Your task to perform on an android device: set the timer Image 0: 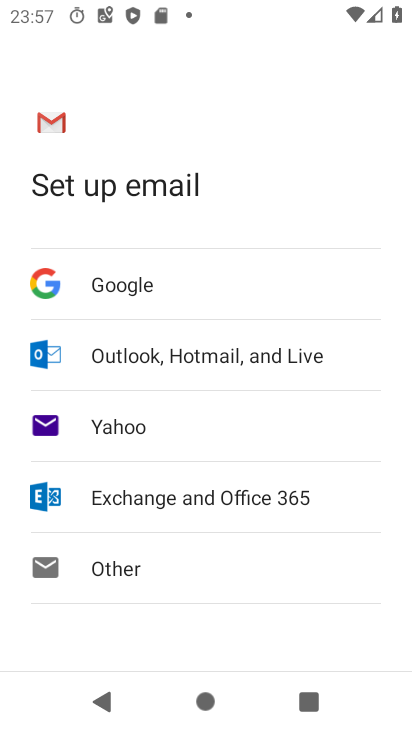
Step 0: press home button
Your task to perform on an android device: set the timer Image 1: 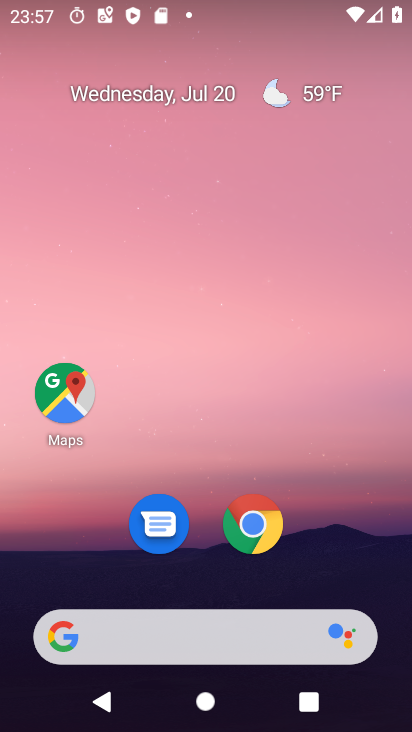
Step 1: drag from (277, 237) to (329, 87)
Your task to perform on an android device: set the timer Image 2: 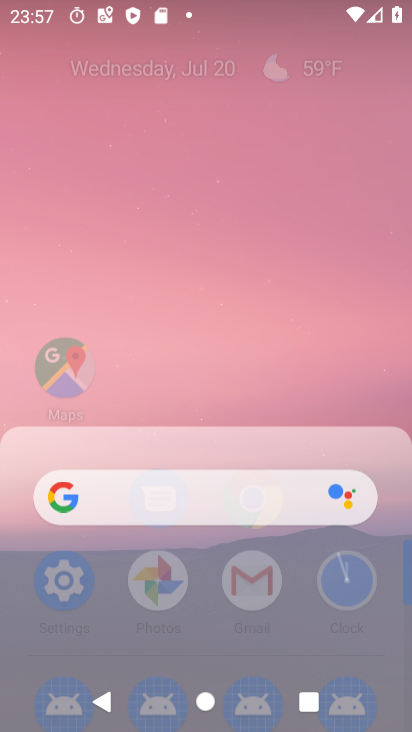
Step 2: drag from (220, 592) to (298, 81)
Your task to perform on an android device: set the timer Image 3: 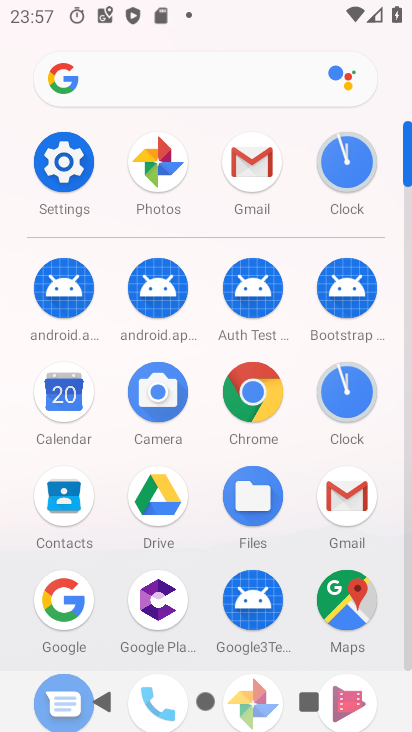
Step 3: click (346, 393)
Your task to perform on an android device: set the timer Image 4: 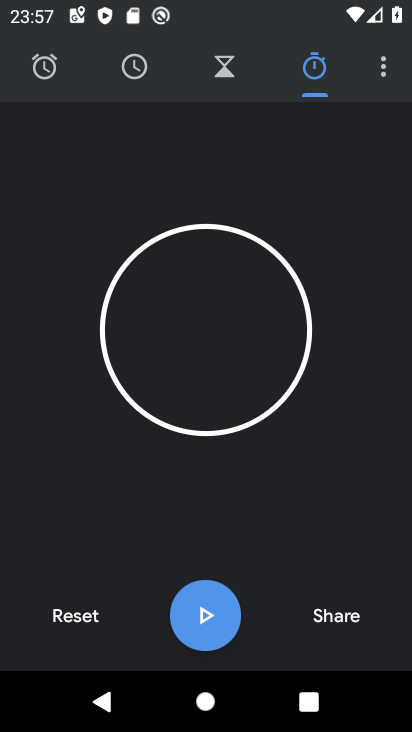
Step 4: click (224, 69)
Your task to perform on an android device: set the timer Image 5: 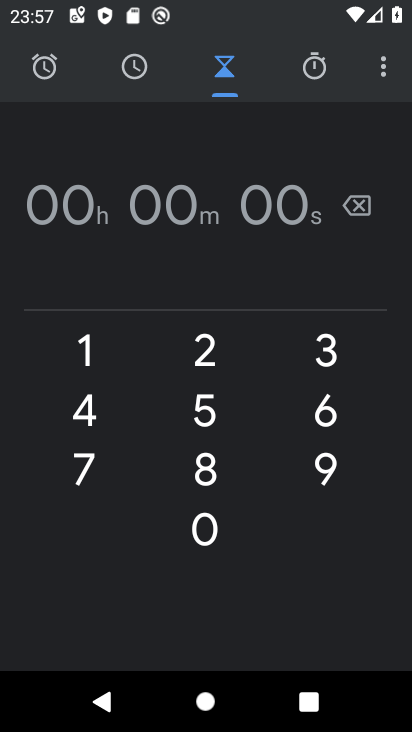
Step 5: click (210, 480)
Your task to perform on an android device: set the timer Image 6: 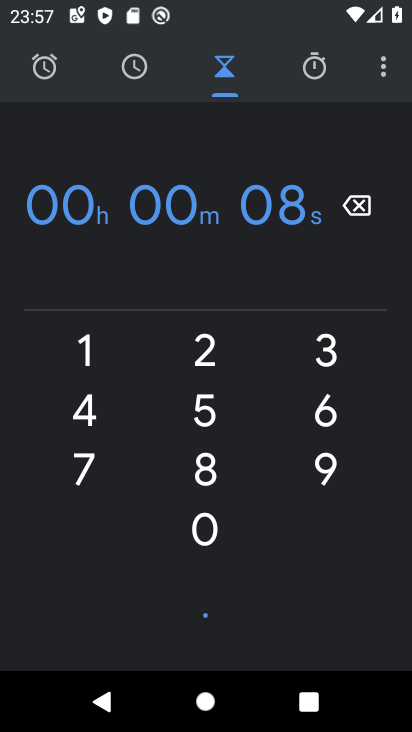
Step 6: click (319, 415)
Your task to perform on an android device: set the timer Image 7: 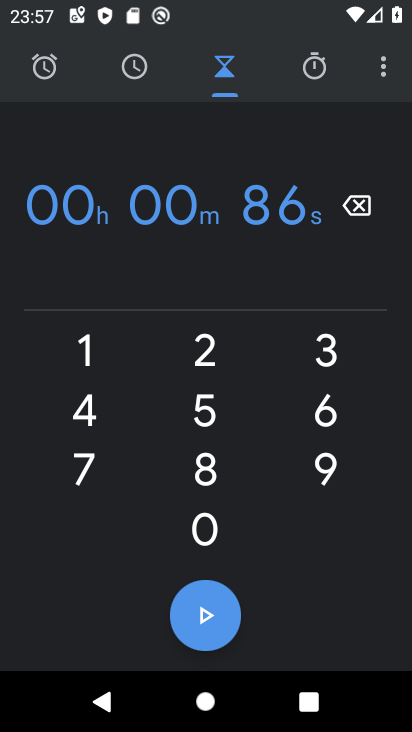
Step 7: click (215, 621)
Your task to perform on an android device: set the timer Image 8: 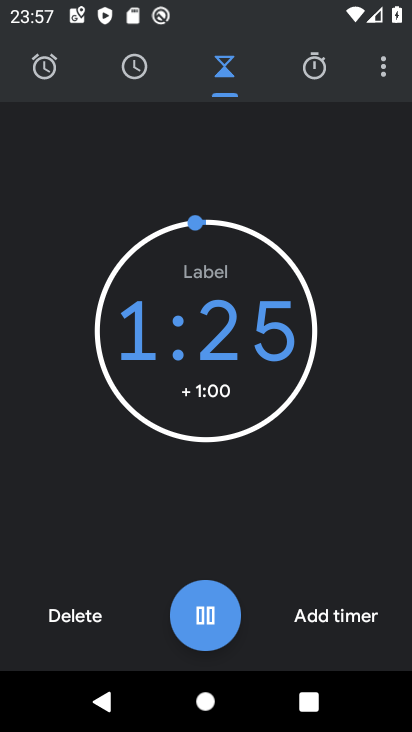
Step 8: click (213, 622)
Your task to perform on an android device: set the timer Image 9: 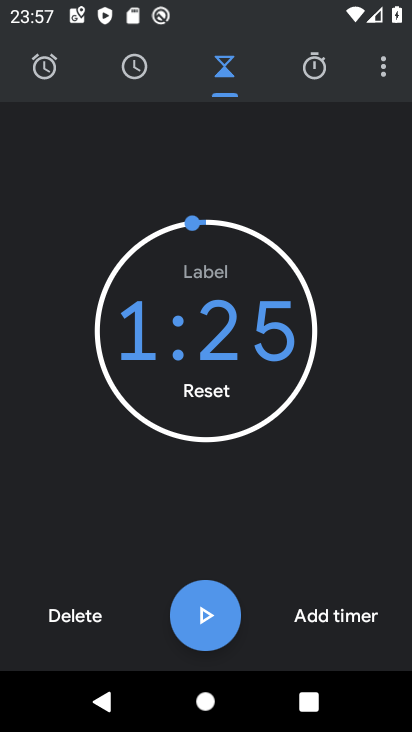
Step 9: task complete